Your task to perform on an android device: all mails in gmail Image 0: 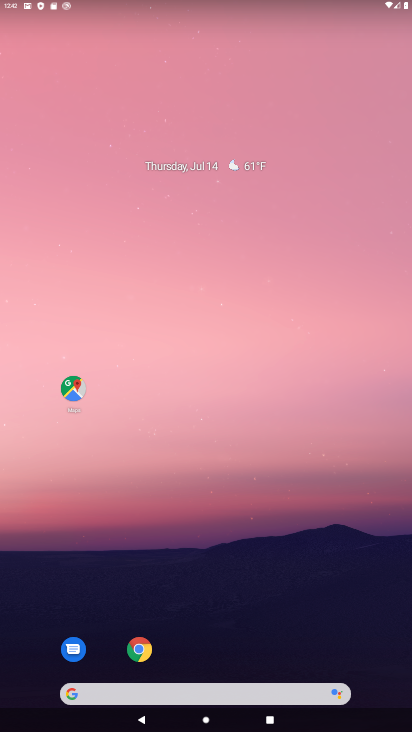
Step 0: drag from (193, 677) to (275, 238)
Your task to perform on an android device: all mails in gmail Image 1: 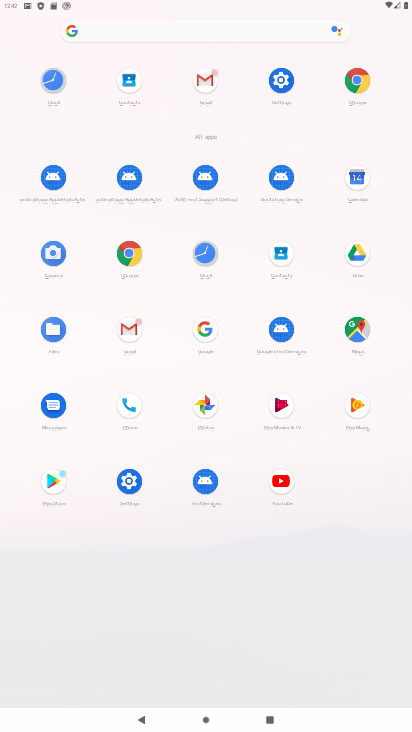
Step 1: click (127, 338)
Your task to perform on an android device: all mails in gmail Image 2: 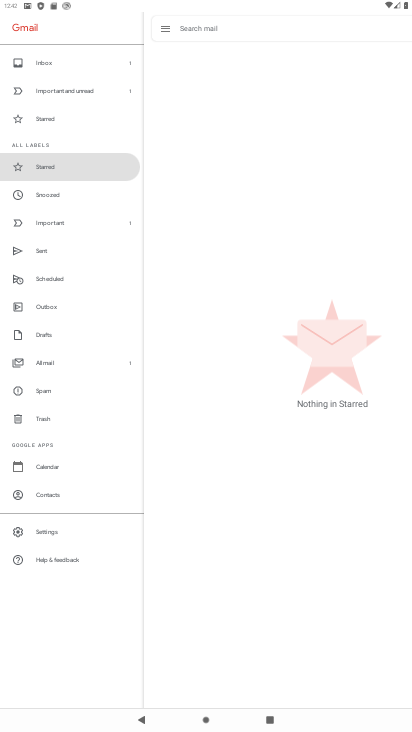
Step 2: click (57, 361)
Your task to perform on an android device: all mails in gmail Image 3: 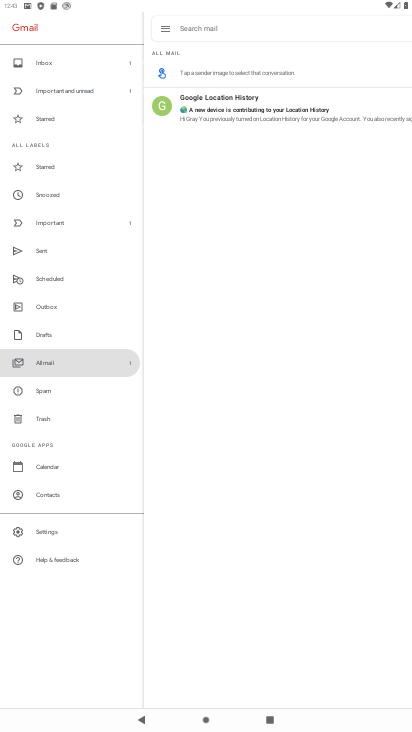
Step 3: task complete